Your task to perform on an android device: Go to Android settings Image 0: 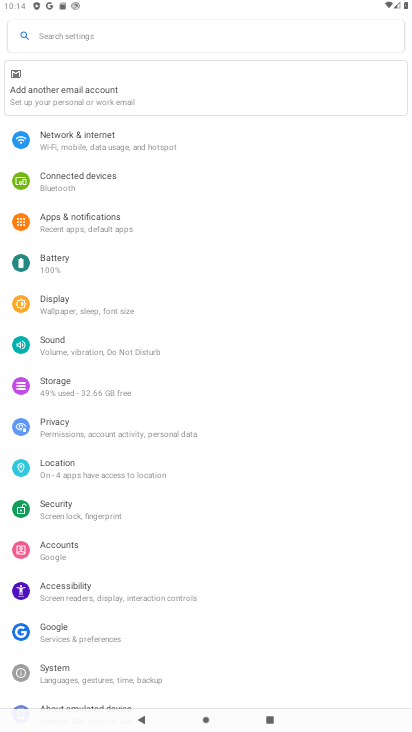
Step 0: press home button
Your task to perform on an android device: Go to Android settings Image 1: 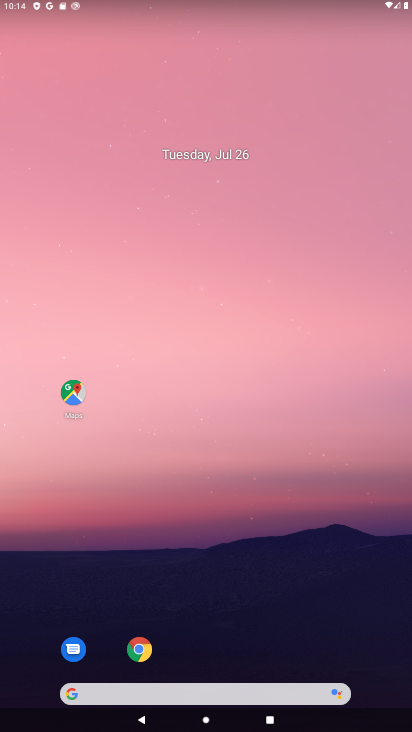
Step 1: drag from (189, 685) to (184, 249)
Your task to perform on an android device: Go to Android settings Image 2: 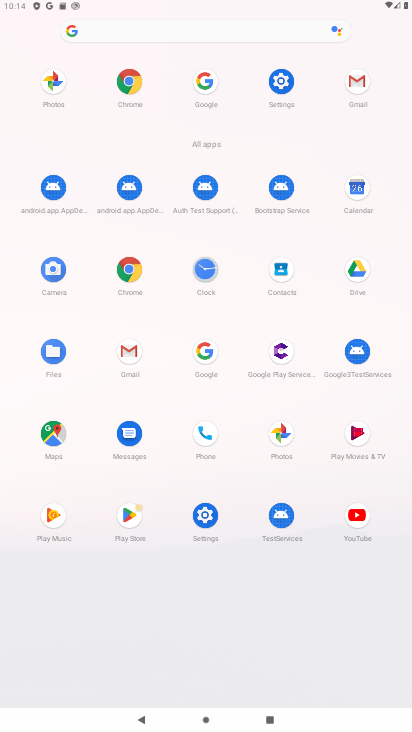
Step 2: click (281, 81)
Your task to perform on an android device: Go to Android settings Image 3: 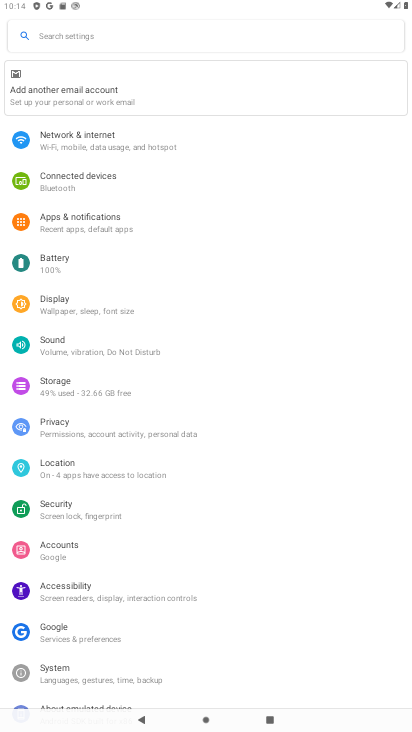
Step 3: task complete